Your task to perform on an android device: Open the stopwatch Image 0: 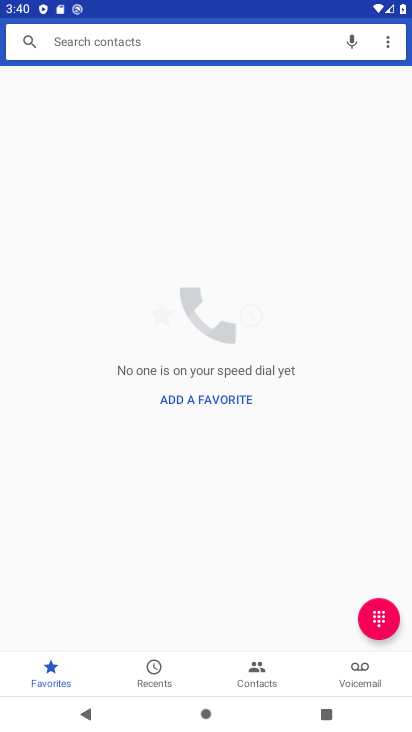
Step 0: press home button
Your task to perform on an android device: Open the stopwatch Image 1: 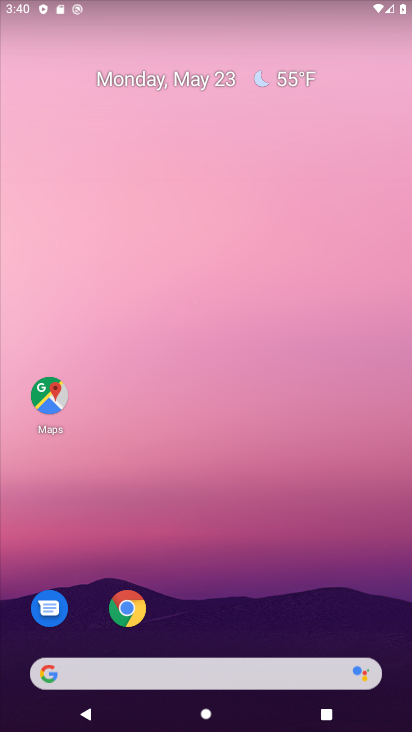
Step 1: drag from (48, 522) to (233, 105)
Your task to perform on an android device: Open the stopwatch Image 2: 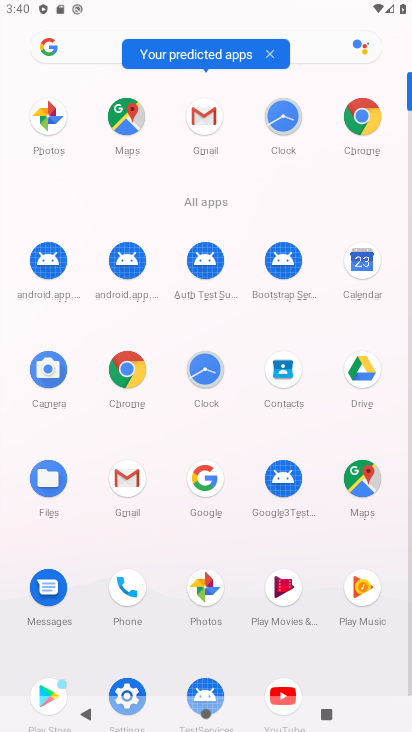
Step 2: click (204, 380)
Your task to perform on an android device: Open the stopwatch Image 3: 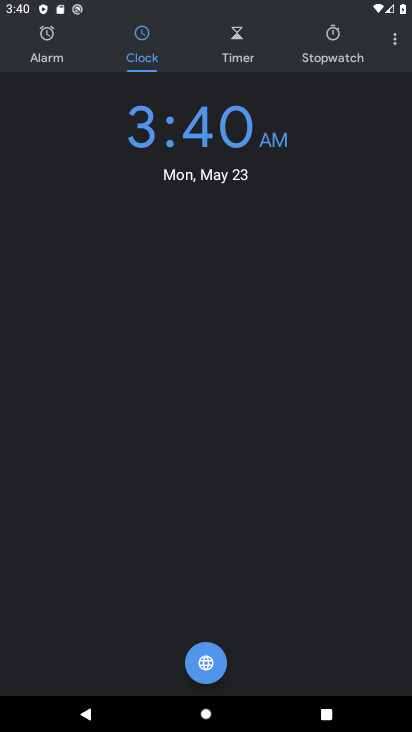
Step 3: click (331, 37)
Your task to perform on an android device: Open the stopwatch Image 4: 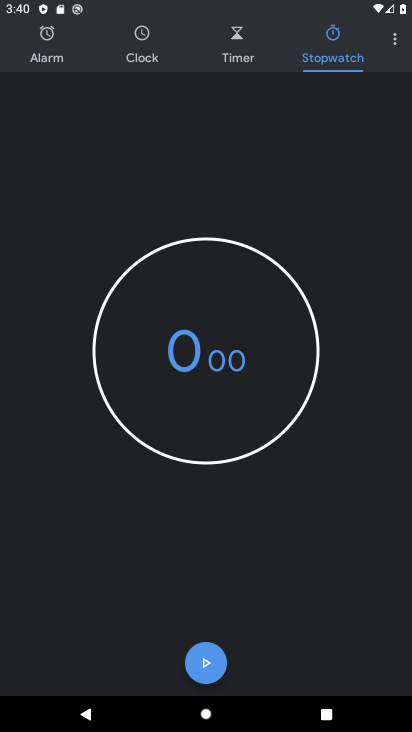
Step 4: click (205, 661)
Your task to perform on an android device: Open the stopwatch Image 5: 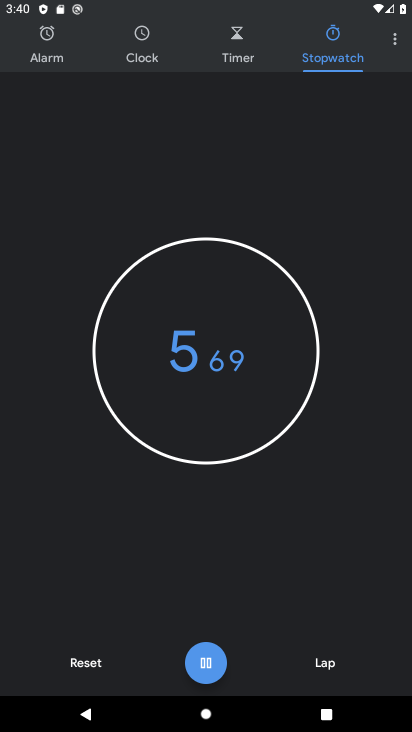
Step 5: task complete